Your task to perform on an android device: delete the emails in spam in the gmail app Image 0: 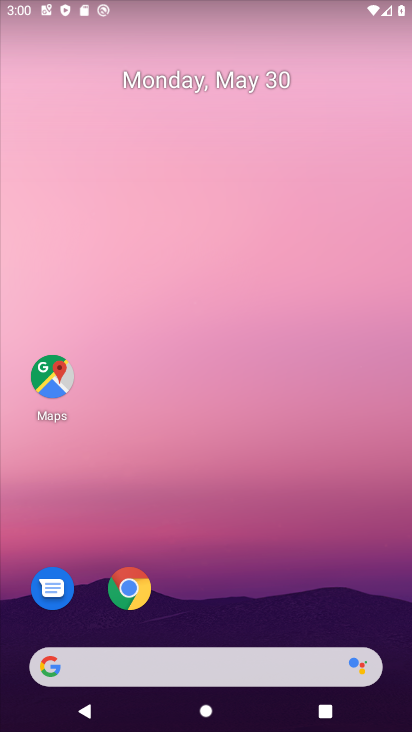
Step 0: drag from (171, 571) to (176, 37)
Your task to perform on an android device: delete the emails in spam in the gmail app Image 1: 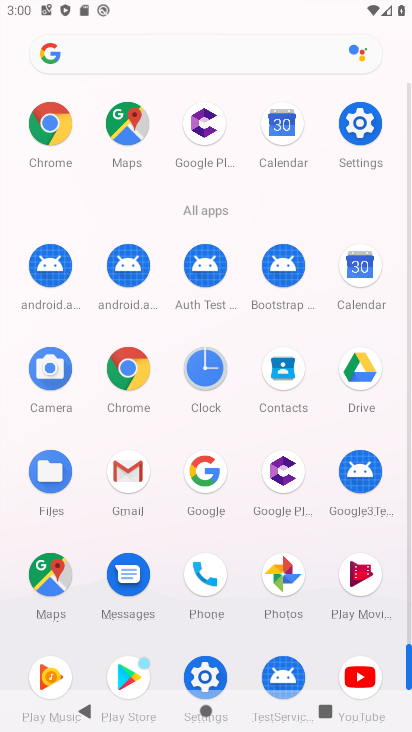
Step 1: click (128, 468)
Your task to perform on an android device: delete the emails in spam in the gmail app Image 2: 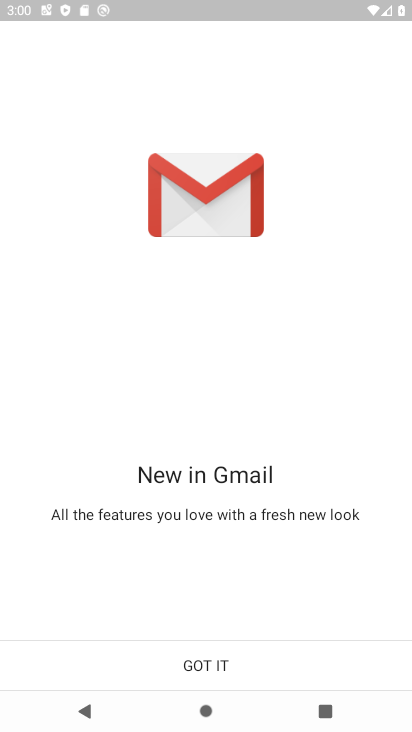
Step 2: click (171, 662)
Your task to perform on an android device: delete the emails in spam in the gmail app Image 3: 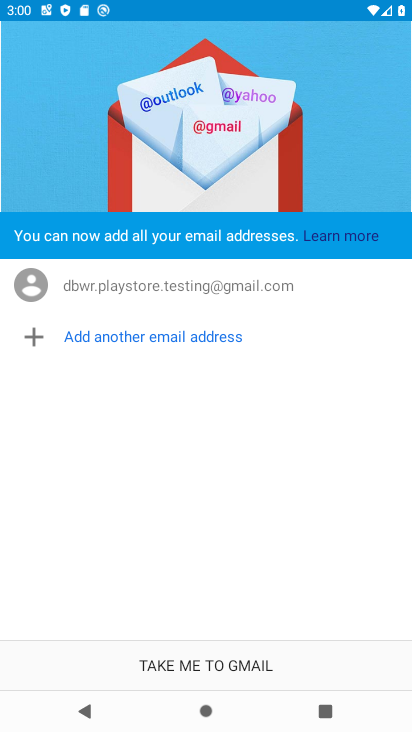
Step 3: click (210, 667)
Your task to perform on an android device: delete the emails in spam in the gmail app Image 4: 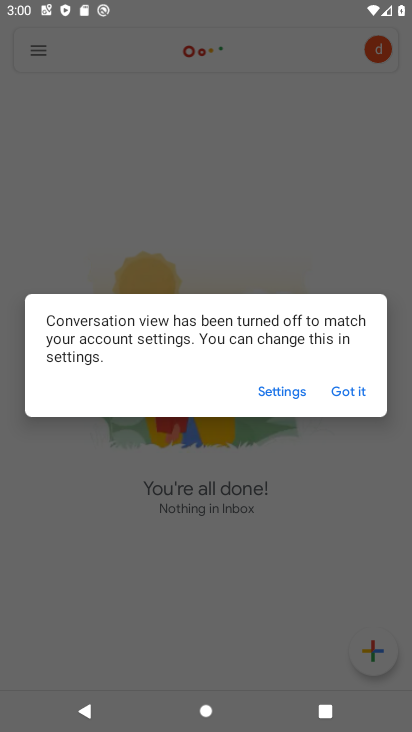
Step 4: click (342, 391)
Your task to perform on an android device: delete the emails in spam in the gmail app Image 5: 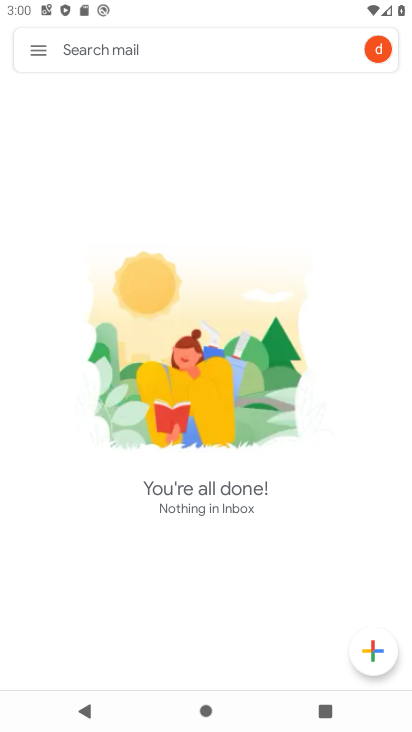
Step 5: click (37, 46)
Your task to perform on an android device: delete the emails in spam in the gmail app Image 6: 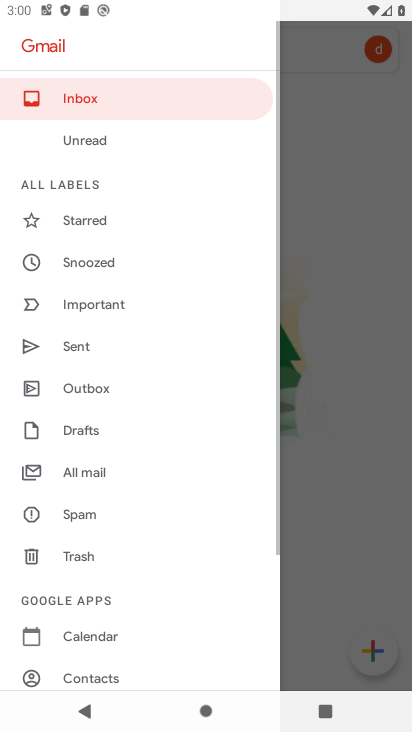
Step 6: drag from (161, 544) to (174, 125)
Your task to perform on an android device: delete the emails in spam in the gmail app Image 7: 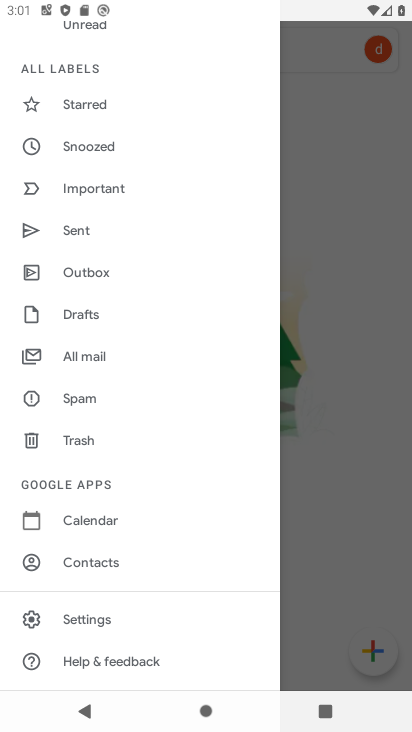
Step 7: click (94, 350)
Your task to perform on an android device: delete the emails in spam in the gmail app Image 8: 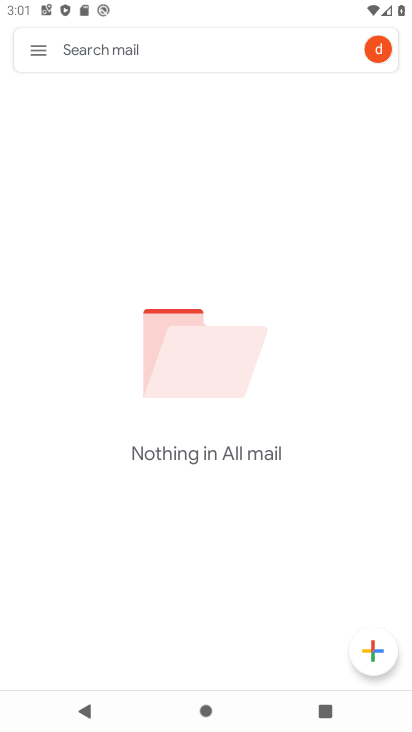
Step 8: click (43, 47)
Your task to perform on an android device: delete the emails in spam in the gmail app Image 9: 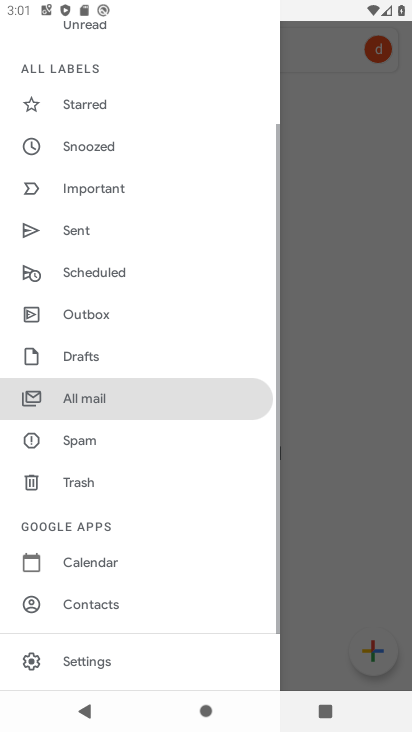
Step 9: drag from (142, 174) to (184, 144)
Your task to perform on an android device: delete the emails in spam in the gmail app Image 10: 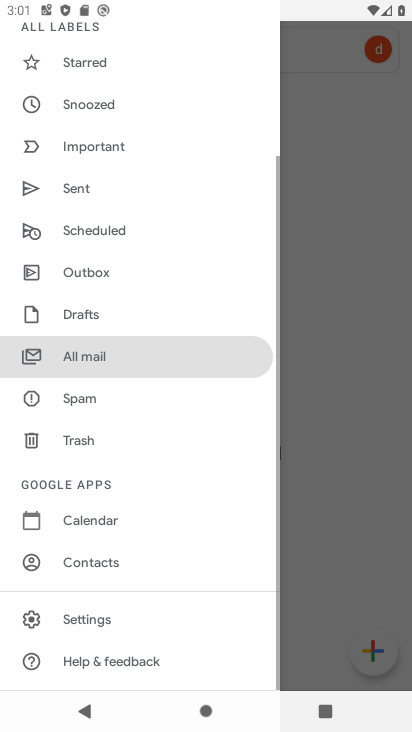
Step 10: click (90, 396)
Your task to perform on an android device: delete the emails in spam in the gmail app Image 11: 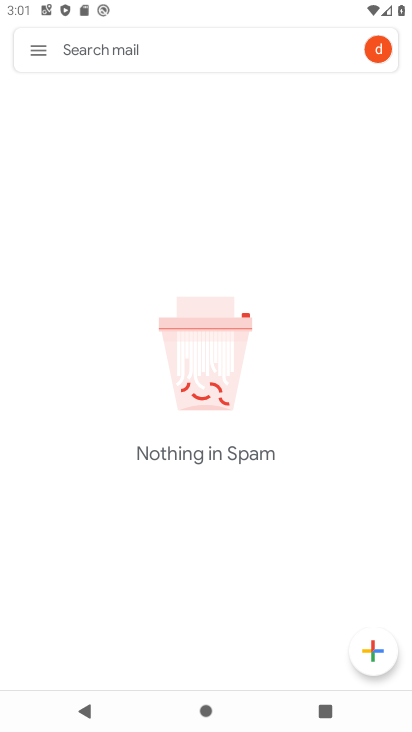
Step 11: click (33, 49)
Your task to perform on an android device: delete the emails in spam in the gmail app Image 12: 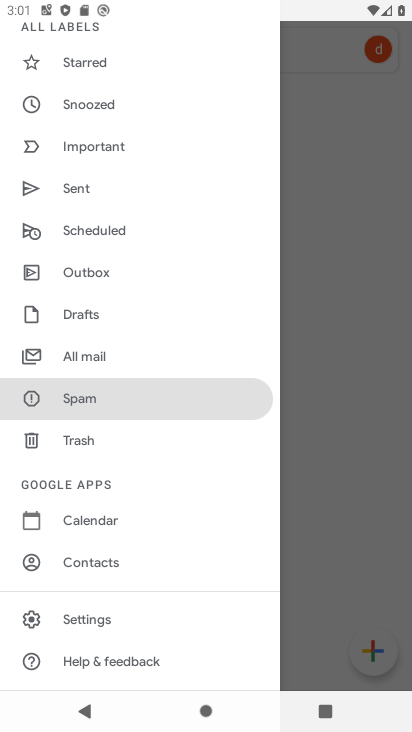
Step 12: click (104, 398)
Your task to perform on an android device: delete the emails in spam in the gmail app Image 13: 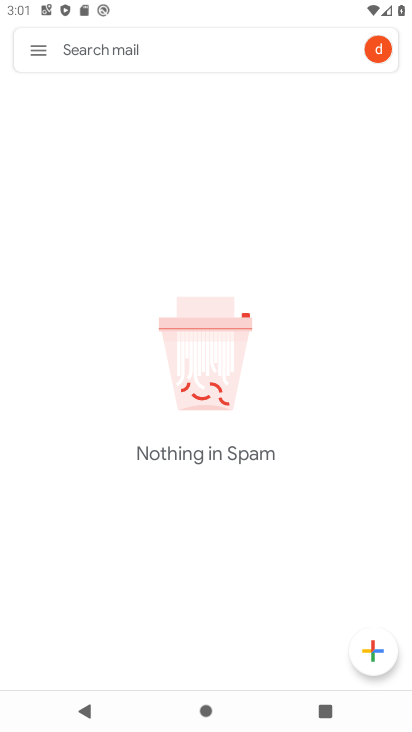
Step 13: task complete